Your task to perform on an android device: Open the phone app and click the voicemail tab. Image 0: 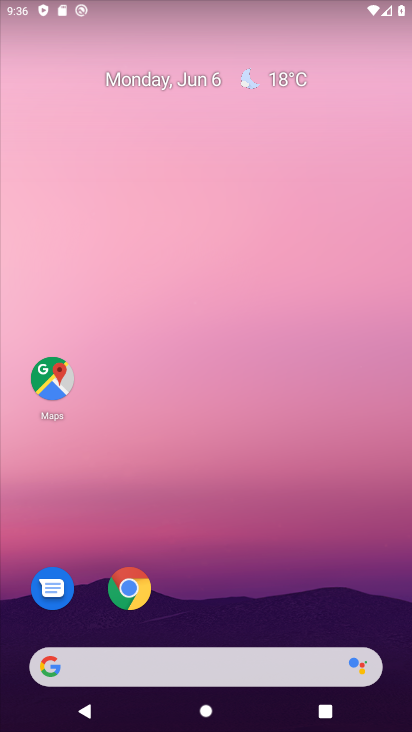
Step 0: drag from (234, 612) to (97, 5)
Your task to perform on an android device: Open the phone app and click the voicemail tab. Image 1: 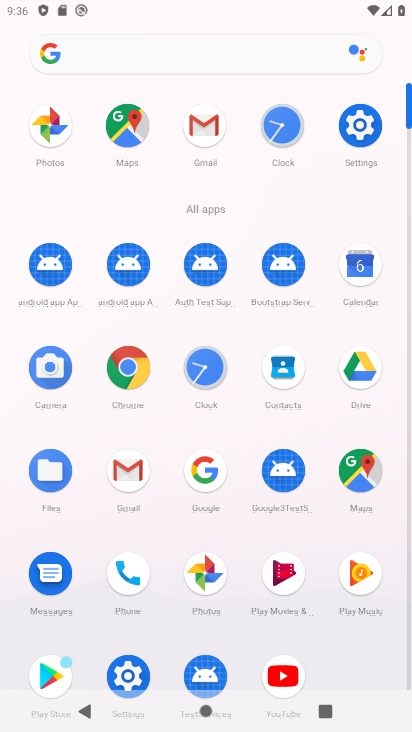
Step 1: click (126, 567)
Your task to perform on an android device: Open the phone app and click the voicemail tab. Image 2: 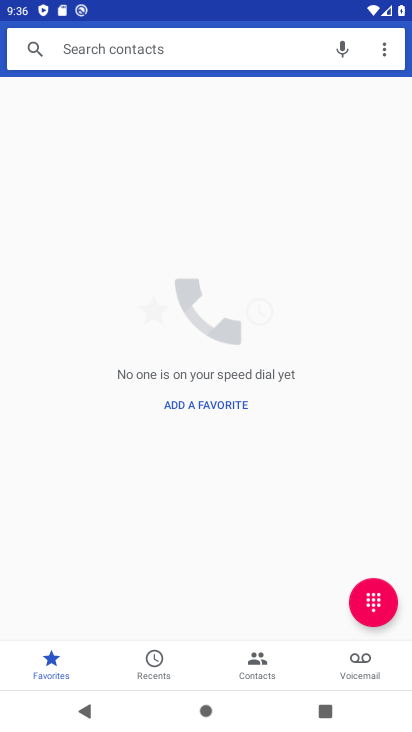
Step 2: click (369, 669)
Your task to perform on an android device: Open the phone app and click the voicemail tab. Image 3: 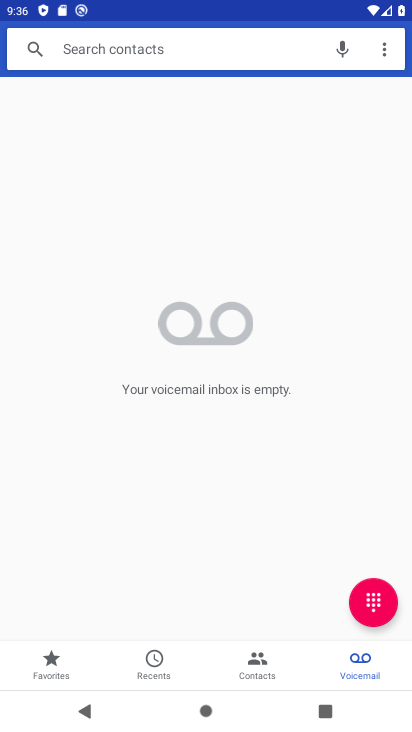
Step 3: task complete